Your task to perform on an android device: Go to internet settings Image 0: 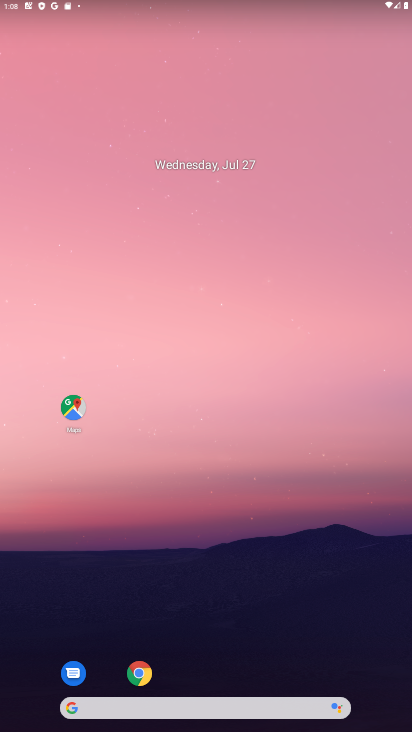
Step 0: drag from (215, 680) to (219, 33)
Your task to perform on an android device: Go to internet settings Image 1: 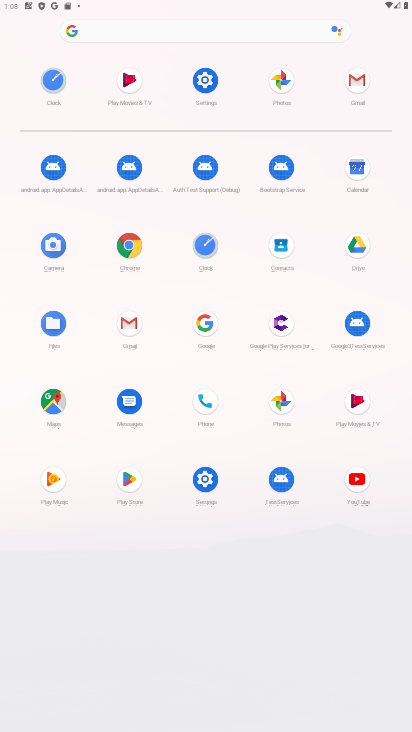
Step 1: click (200, 86)
Your task to perform on an android device: Go to internet settings Image 2: 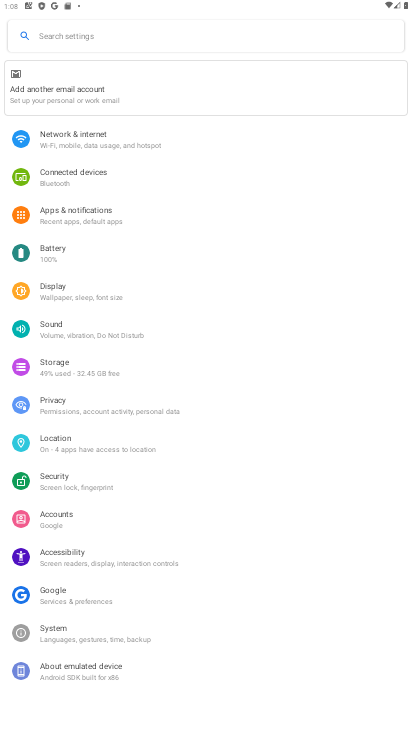
Step 2: click (77, 150)
Your task to perform on an android device: Go to internet settings Image 3: 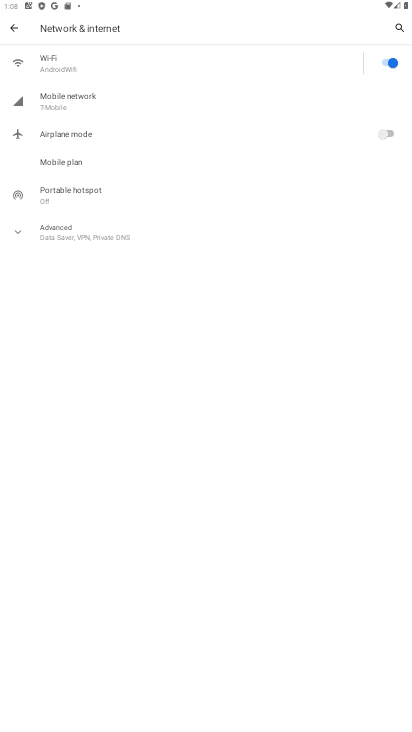
Step 3: click (22, 233)
Your task to perform on an android device: Go to internet settings Image 4: 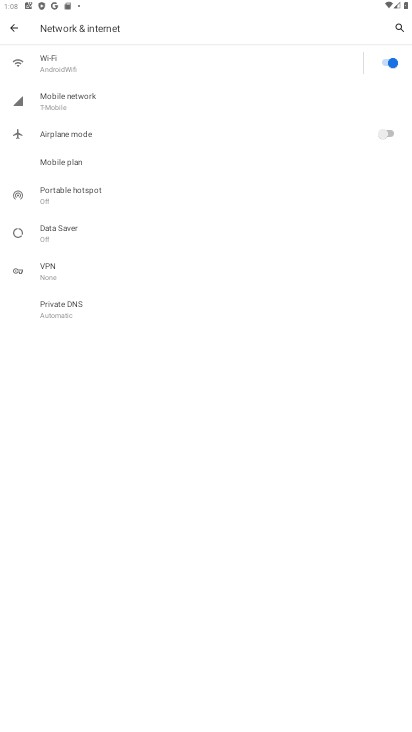
Step 4: task complete